Your task to perform on an android device: check out phone information Image 0: 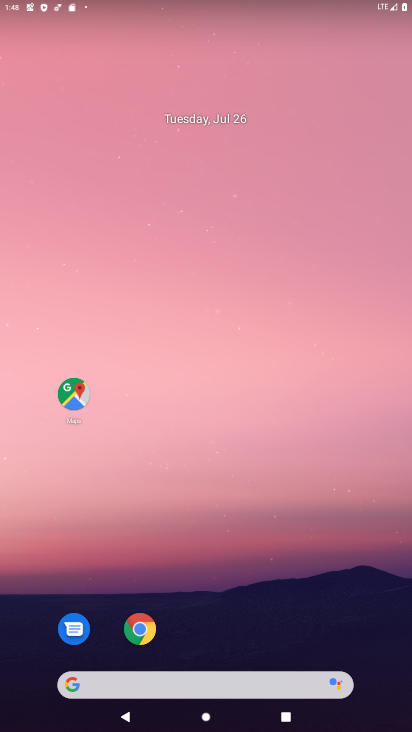
Step 0: press home button
Your task to perform on an android device: check out phone information Image 1: 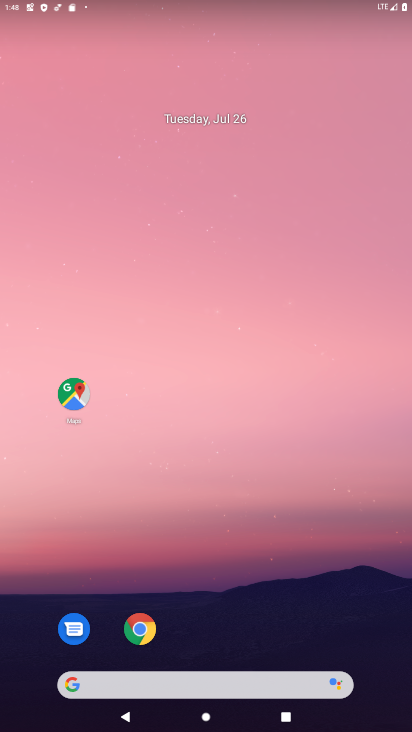
Step 1: drag from (388, 719) to (357, 232)
Your task to perform on an android device: check out phone information Image 2: 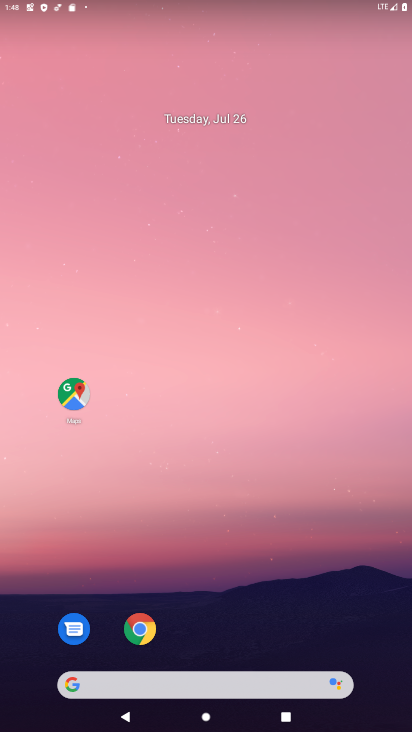
Step 2: drag from (396, 715) to (336, 38)
Your task to perform on an android device: check out phone information Image 3: 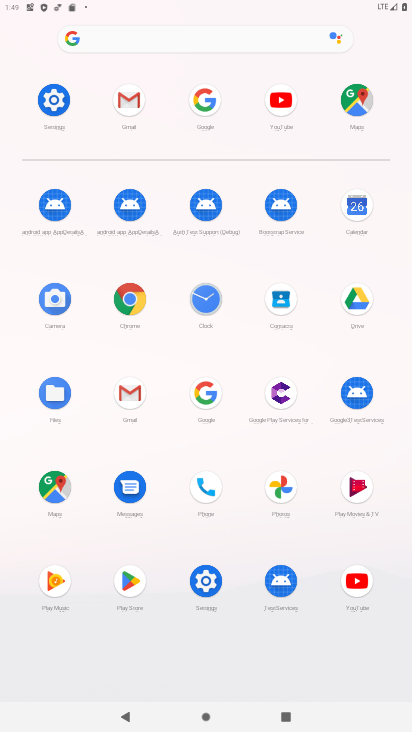
Step 3: click (205, 579)
Your task to perform on an android device: check out phone information Image 4: 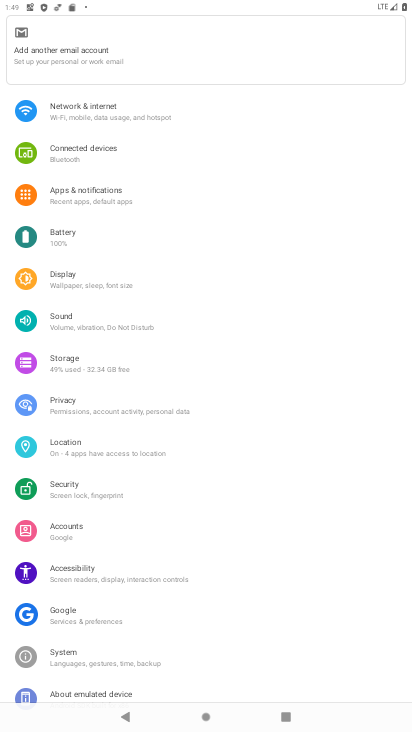
Step 4: drag from (333, 676) to (319, 330)
Your task to perform on an android device: check out phone information Image 5: 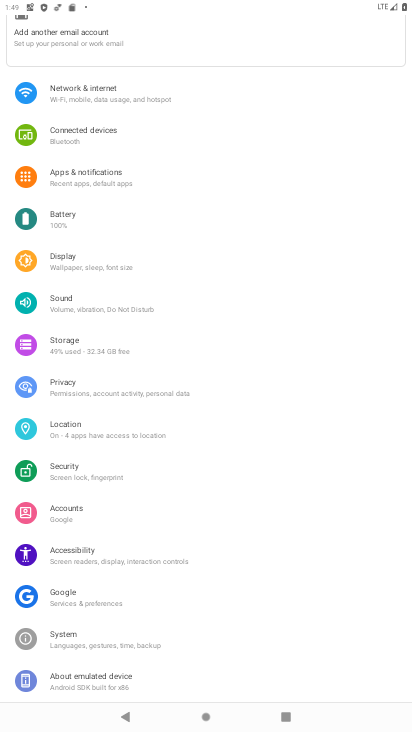
Step 5: click (72, 672)
Your task to perform on an android device: check out phone information Image 6: 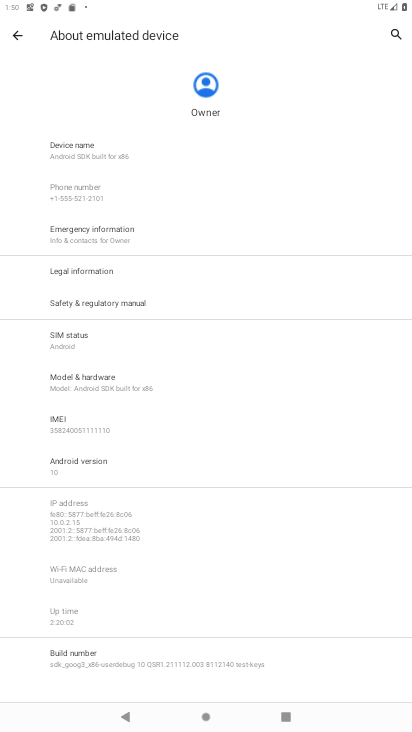
Step 6: task complete